Your task to perform on an android device: Show me popular videos on Youtube Image 0: 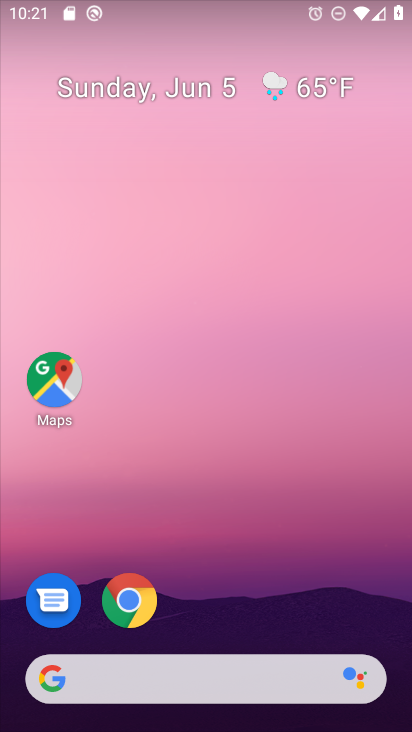
Step 0: drag from (376, 490) to (300, 113)
Your task to perform on an android device: Show me popular videos on Youtube Image 1: 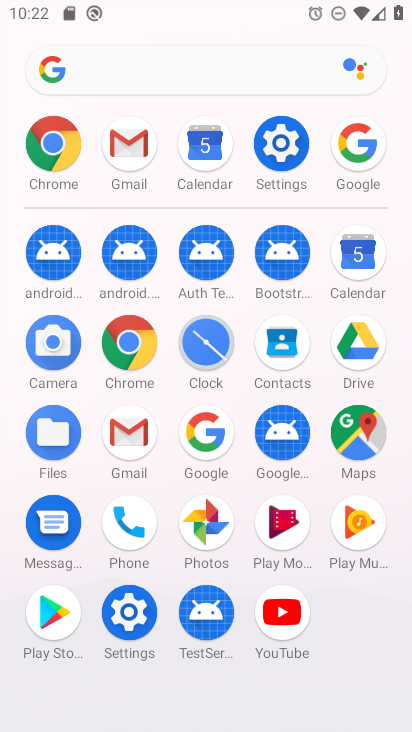
Step 1: click (267, 615)
Your task to perform on an android device: Show me popular videos on Youtube Image 2: 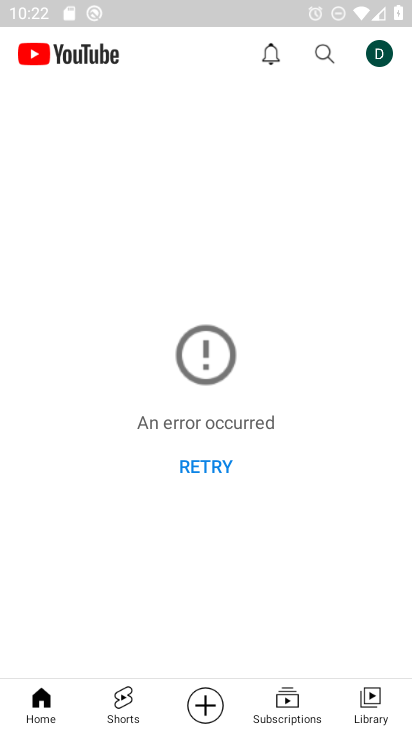
Step 2: task complete